Your task to perform on an android device: Open the map Image 0: 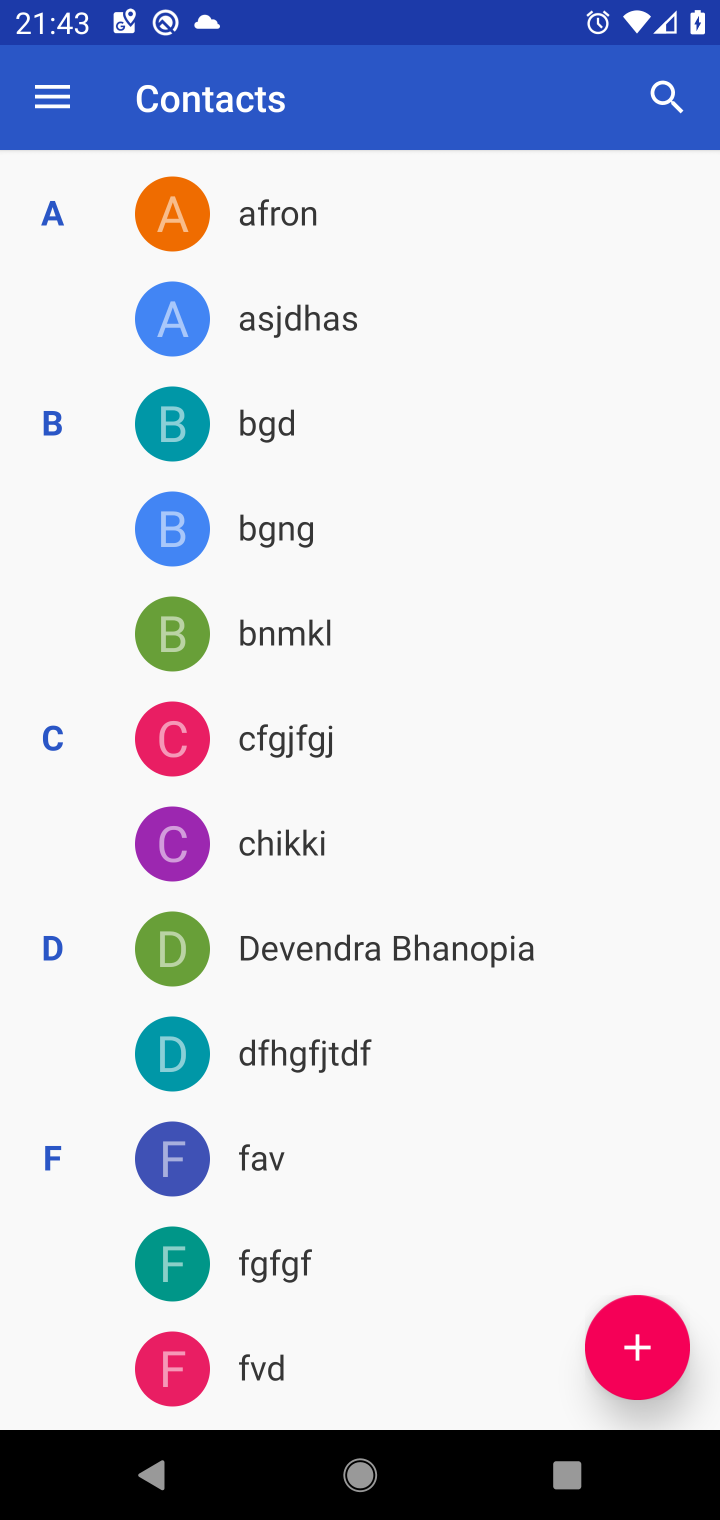
Step 0: press home button
Your task to perform on an android device: Open the map Image 1: 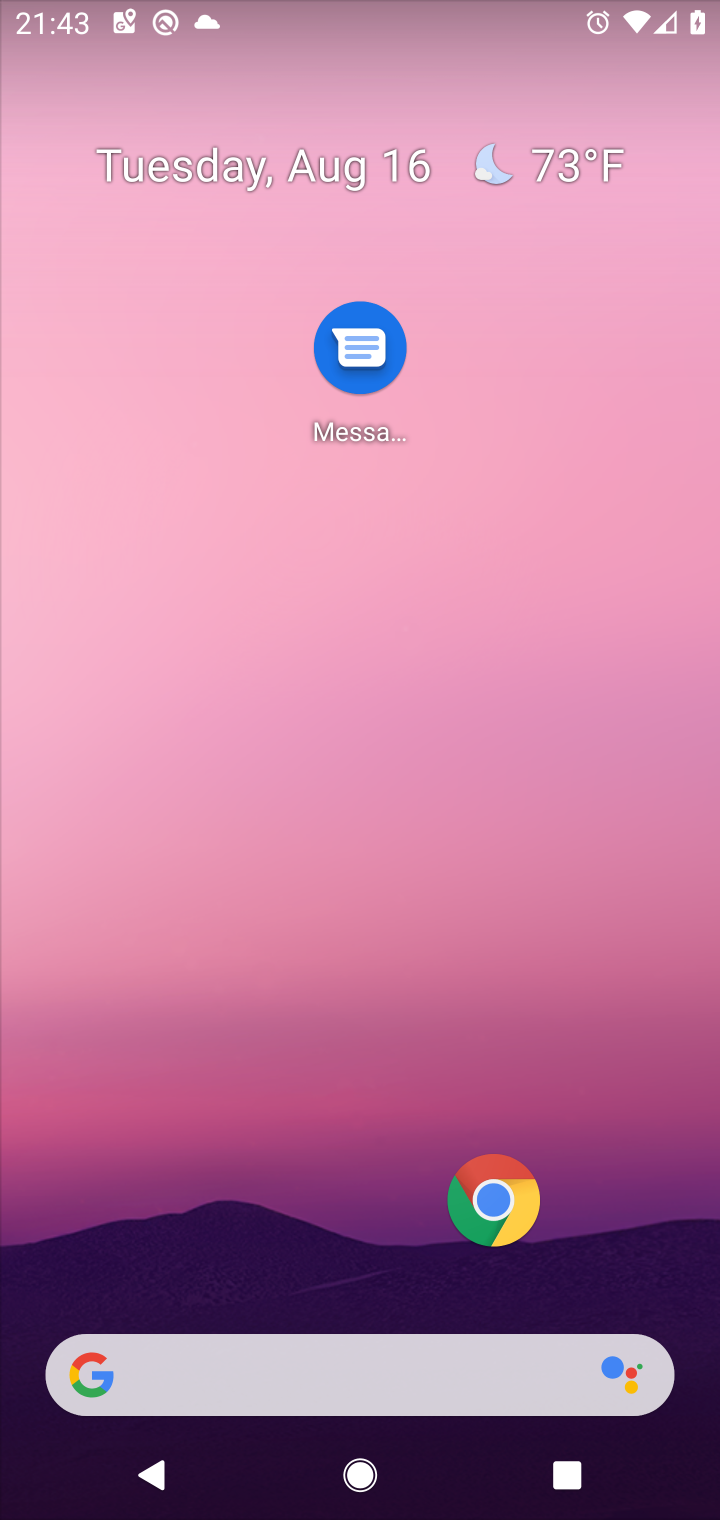
Step 1: drag from (66, 1463) to (302, 554)
Your task to perform on an android device: Open the map Image 2: 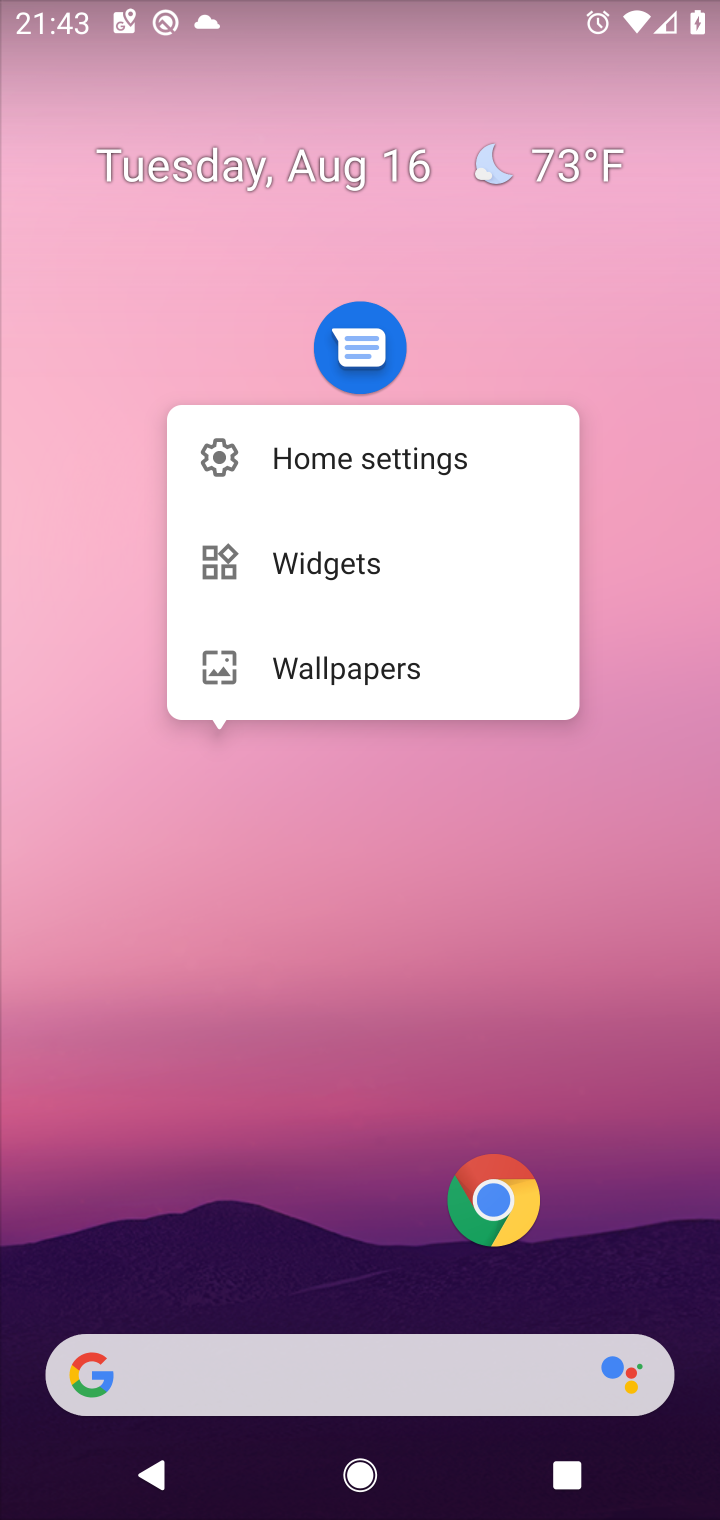
Step 2: click (21, 1410)
Your task to perform on an android device: Open the map Image 3: 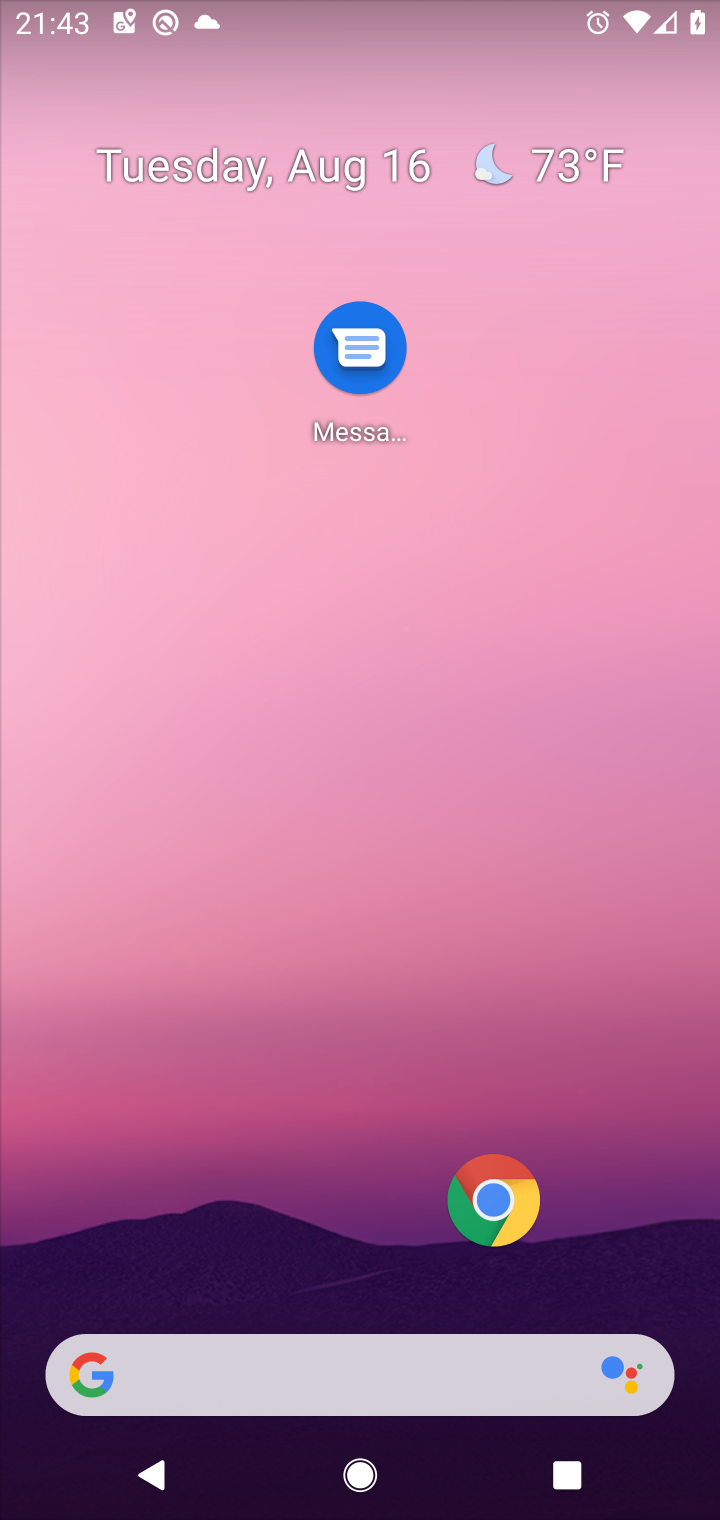
Step 3: drag from (40, 1464) to (224, 672)
Your task to perform on an android device: Open the map Image 4: 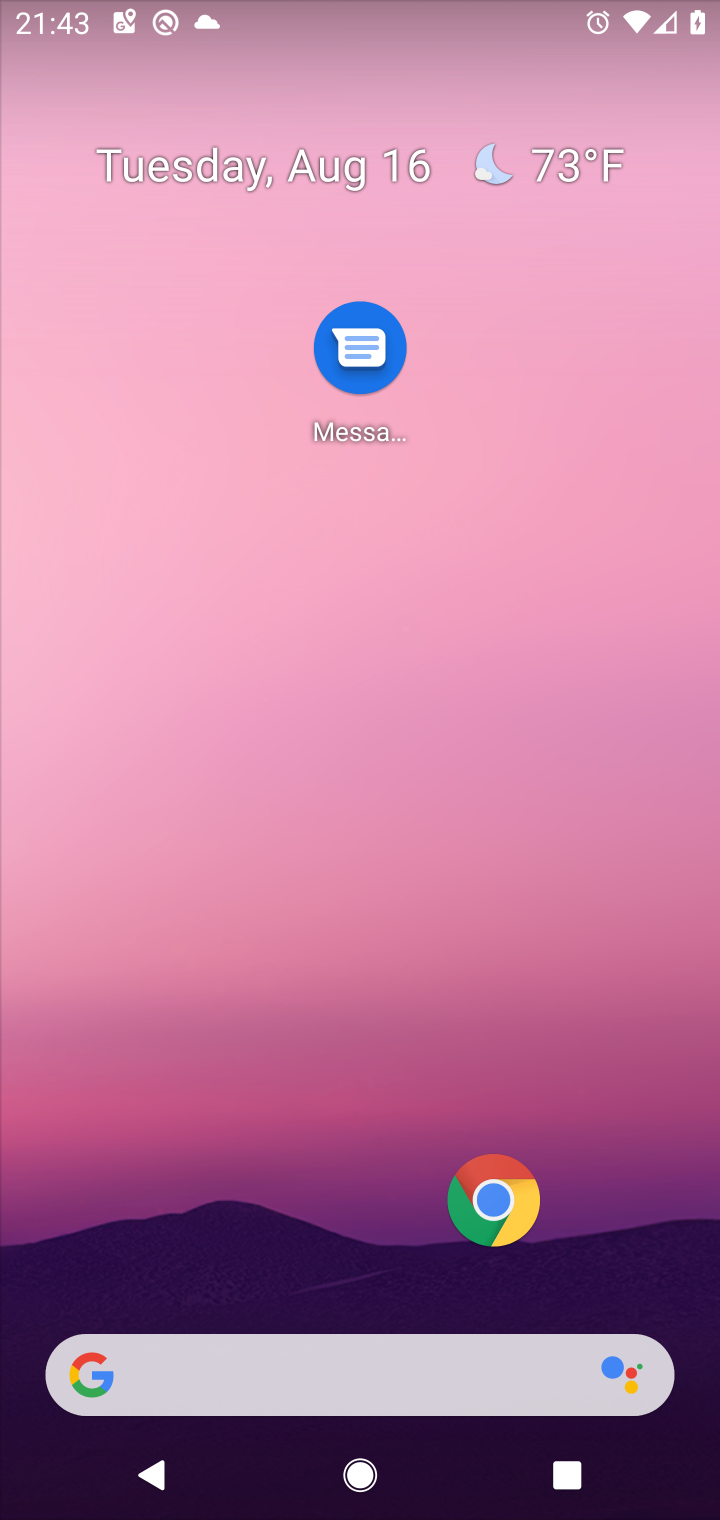
Step 4: drag from (124, 1306) to (252, 710)
Your task to perform on an android device: Open the map Image 5: 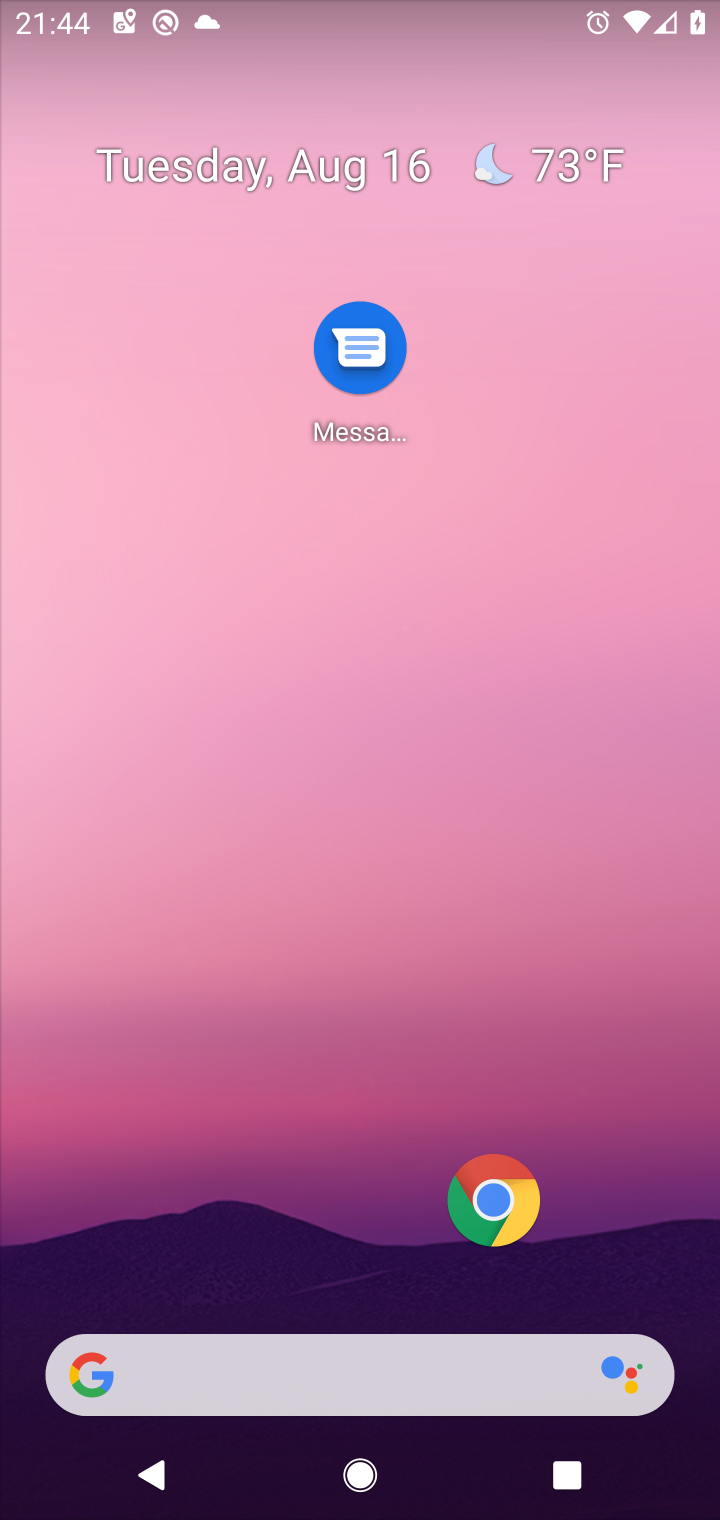
Step 5: drag from (57, 1482) to (354, 546)
Your task to perform on an android device: Open the map Image 6: 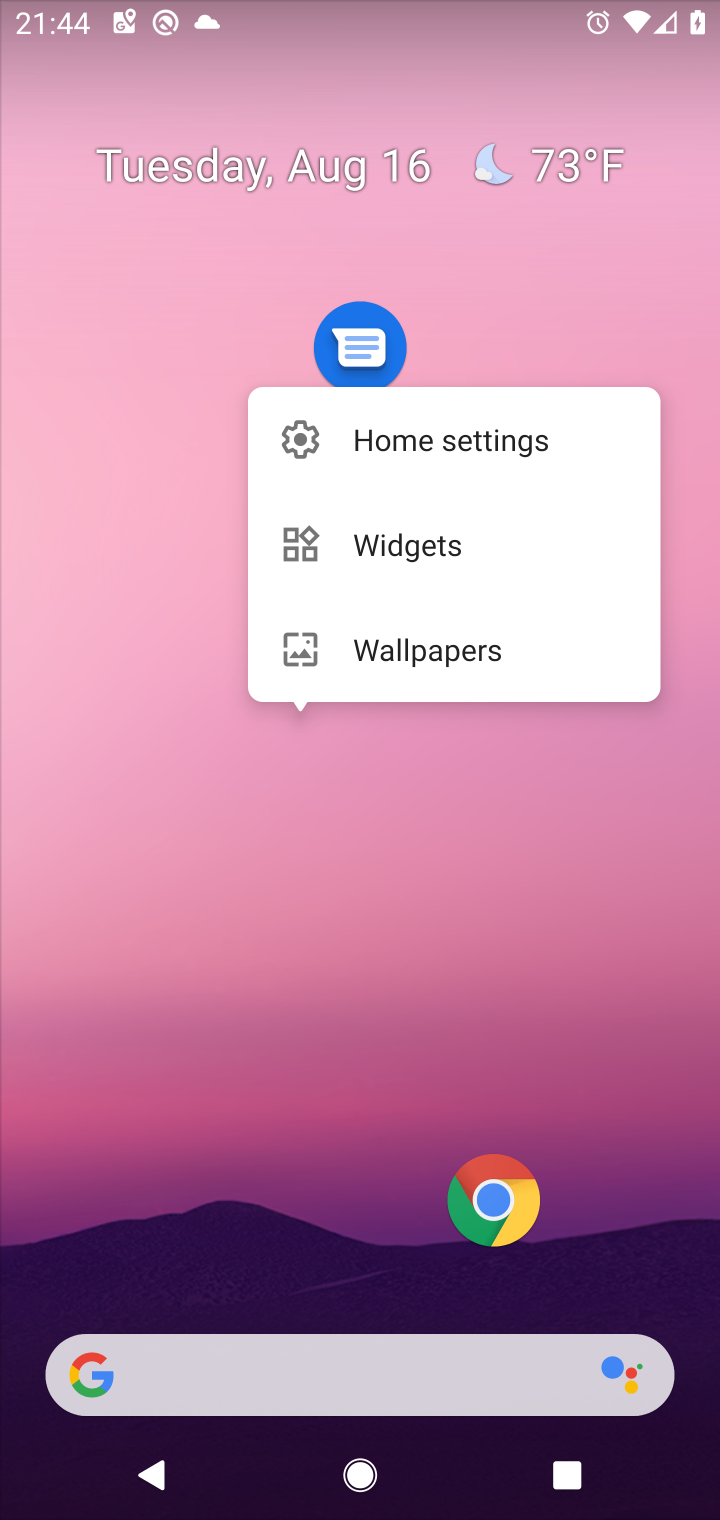
Step 6: click (75, 1441)
Your task to perform on an android device: Open the map Image 7: 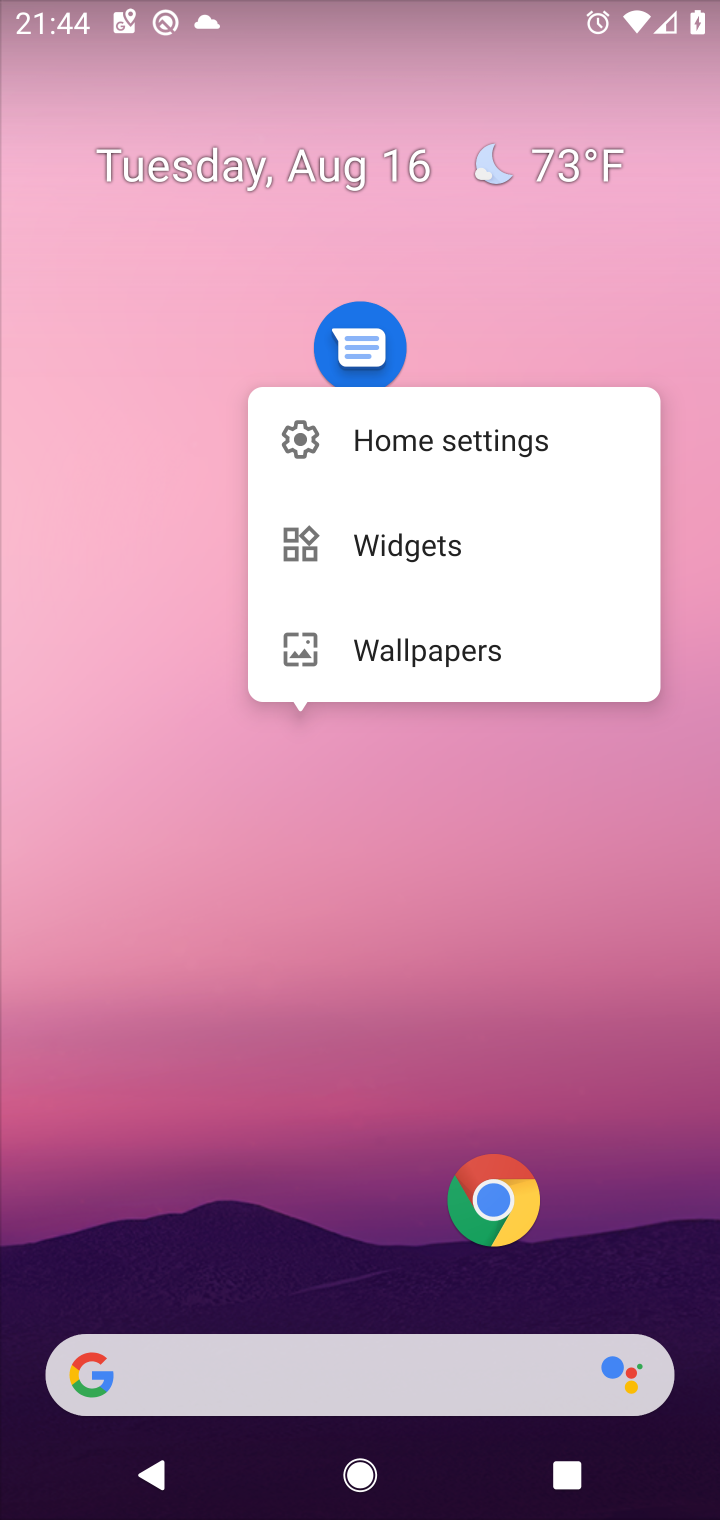
Step 7: task complete